Your task to perform on an android device: Go to battery settings Image 0: 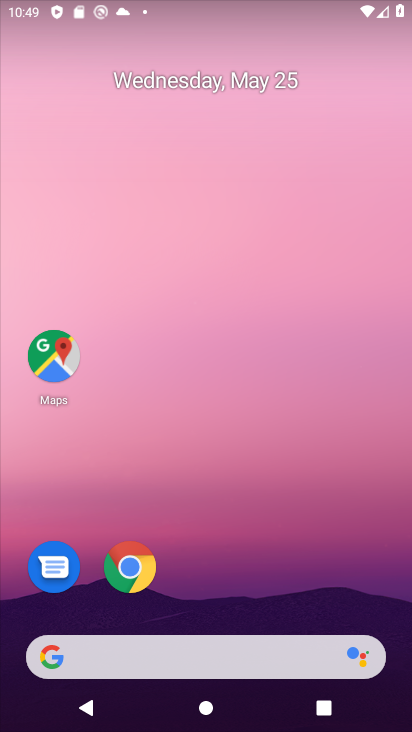
Step 0: drag from (0, 0) to (405, 341)
Your task to perform on an android device: Go to battery settings Image 1: 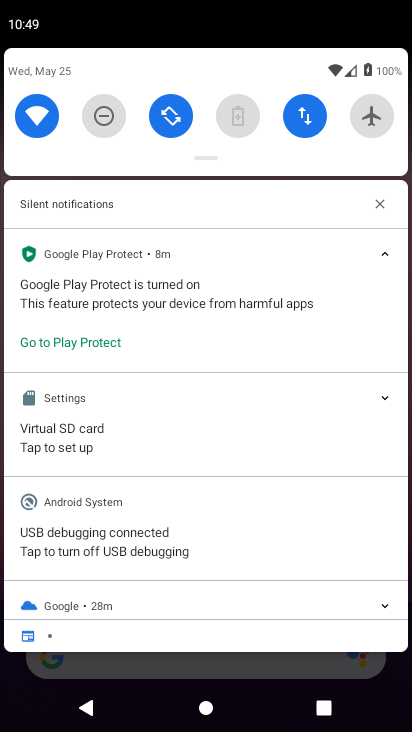
Step 1: drag from (215, 666) to (316, 1)
Your task to perform on an android device: Go to battery settings Image 2: 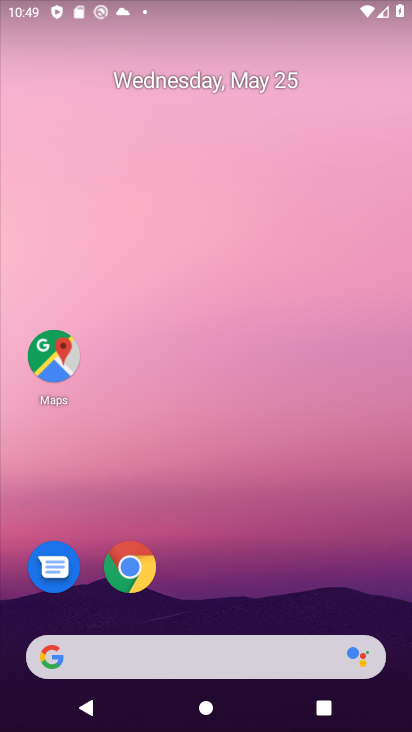
Step 2: drag from (245, 594) to (246, 108)
Your task to perform on an android device: Go to battery settings Image 3: 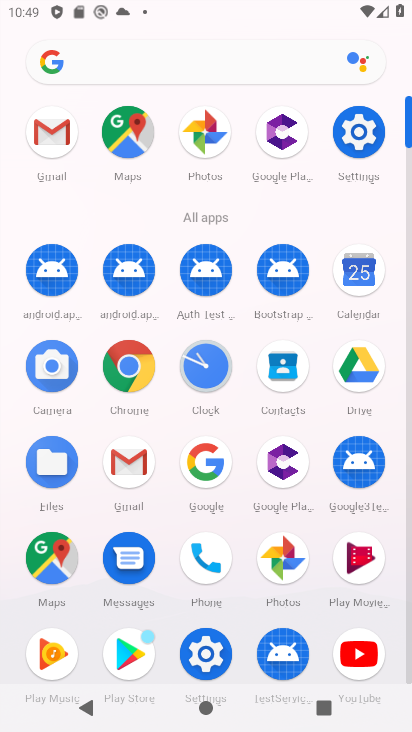
Step 3: click (355, 128)
Your task to perform on an android device: Go to battery settings Image 4: 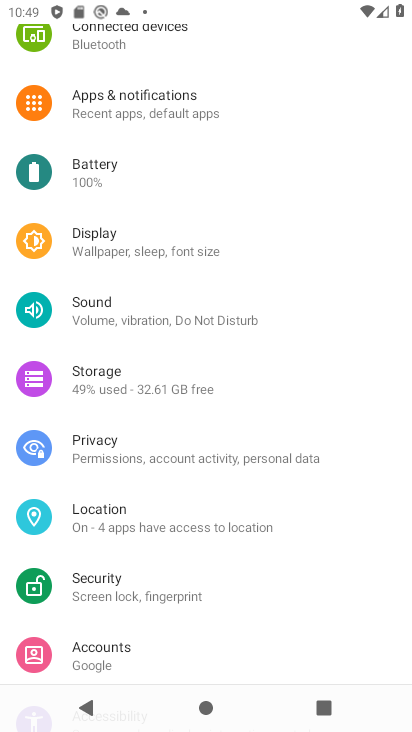
Step 4: click (122, 176)
Your task to perform on an android device: Go to battery settings Image 5: 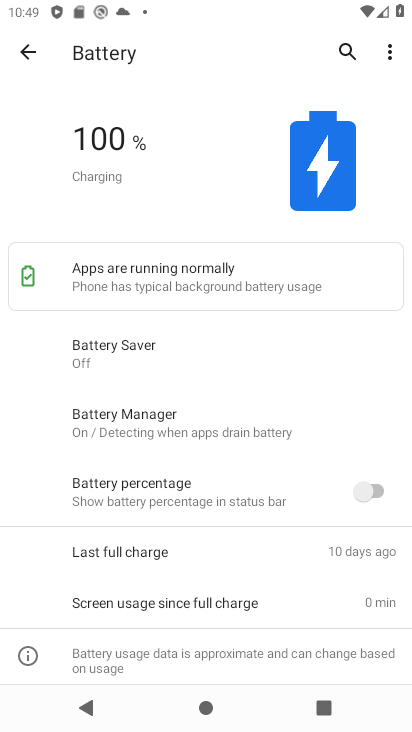
Step 5: task complete